Your task to perform on an android device: install app "Flipkart Online Shopping App" Image 0: 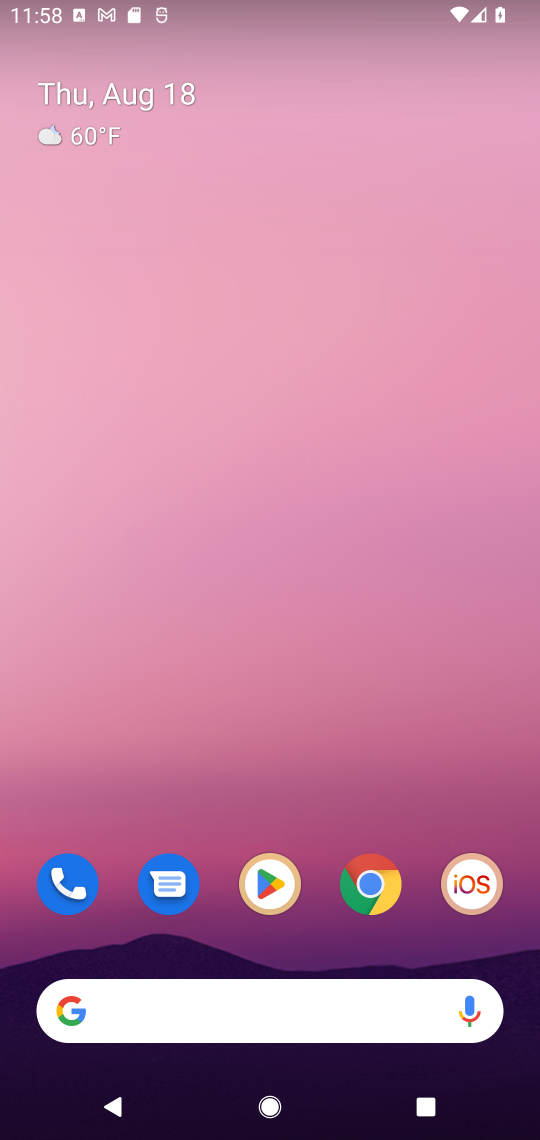
Step 0: drag from (226, 1016) to (285, 83)
Your task to perform on an android device: install app "Flipkart Online Shopping App" Image 1: 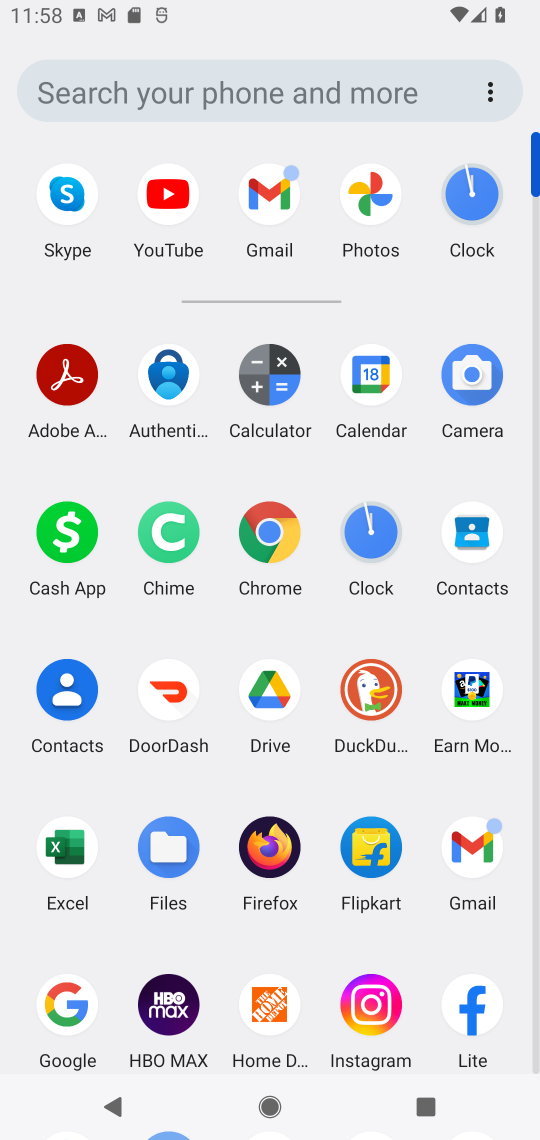
Step 1: drag from (308, 947) to (336, 292)
Your task to perform on an android device: install app "Flipkart Online Shopping App" Image 2: 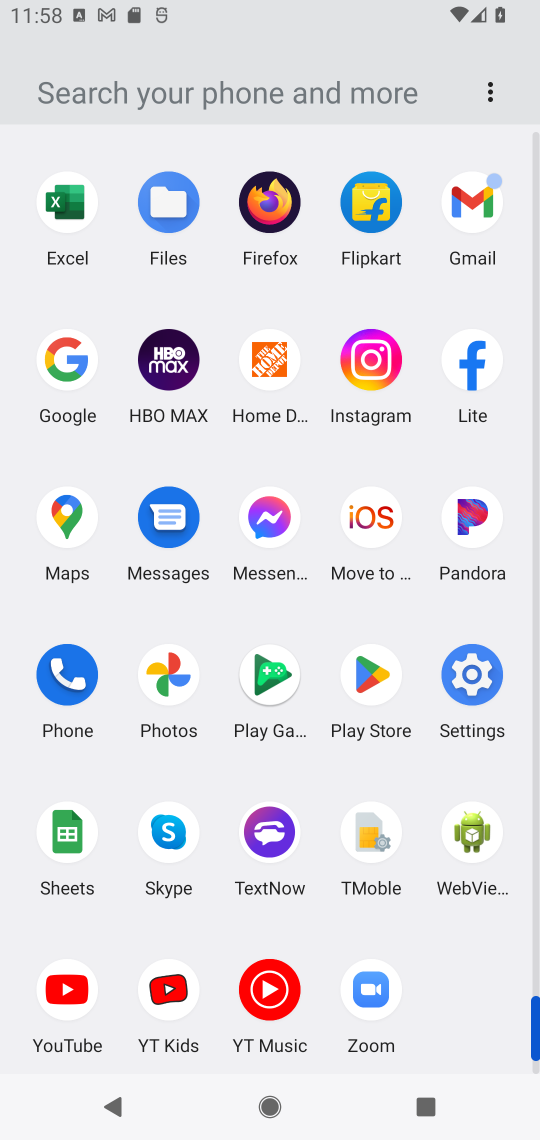
Step 2: click (369, 676)
Your task to perform on an android device: install app "Flipkart Online Shopping App" Image 3: 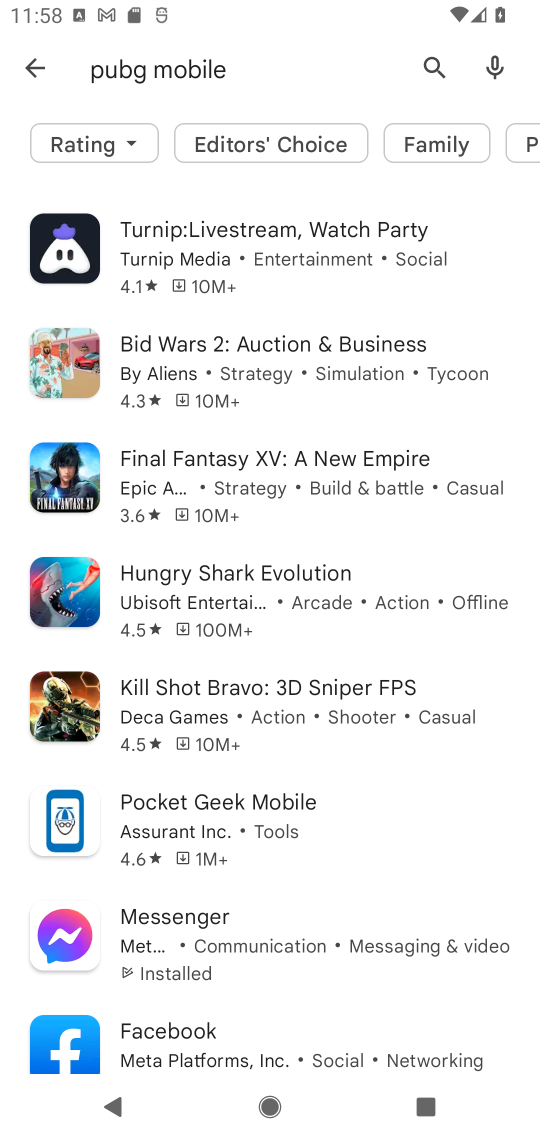
Step 3: press back button
Your task to perform on an android device: install app "Flipkart Online Shopping App" Image 4: 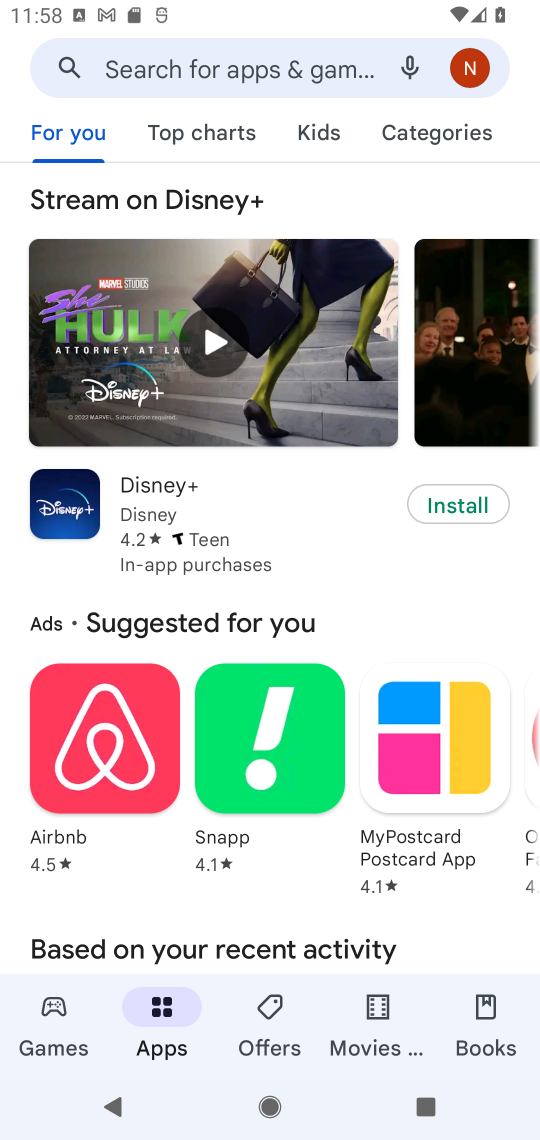
Step 4: click (242, 58)
Your task to perform on an android device: install app "Flipkart Online Shopping App" Image 5: 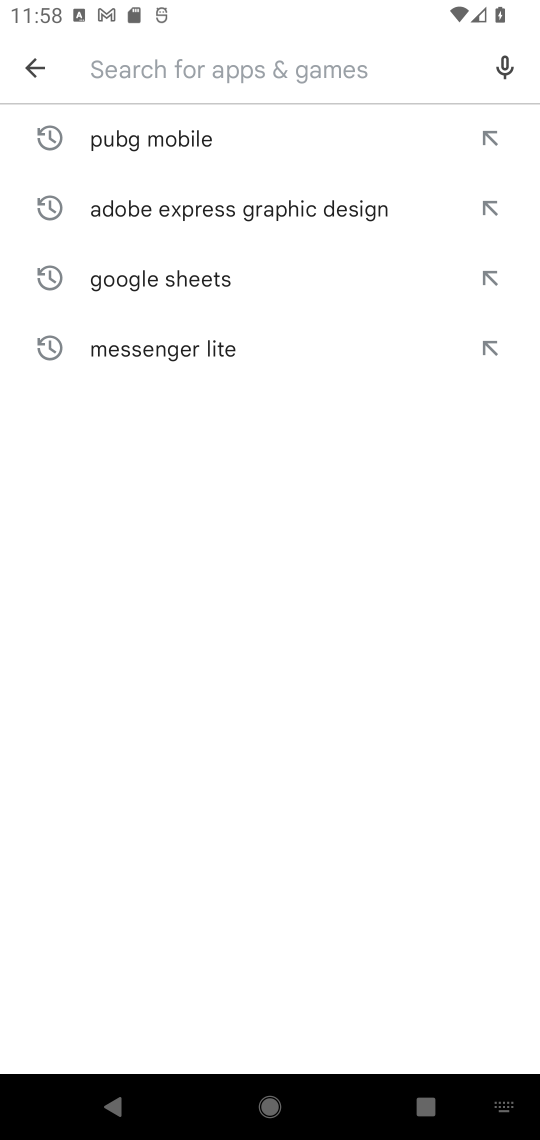
Step 5: type "Flipkart Online Shopping App"
Your task to perform on an android device: install app "Flipkart Online Shopping App" Image 6: 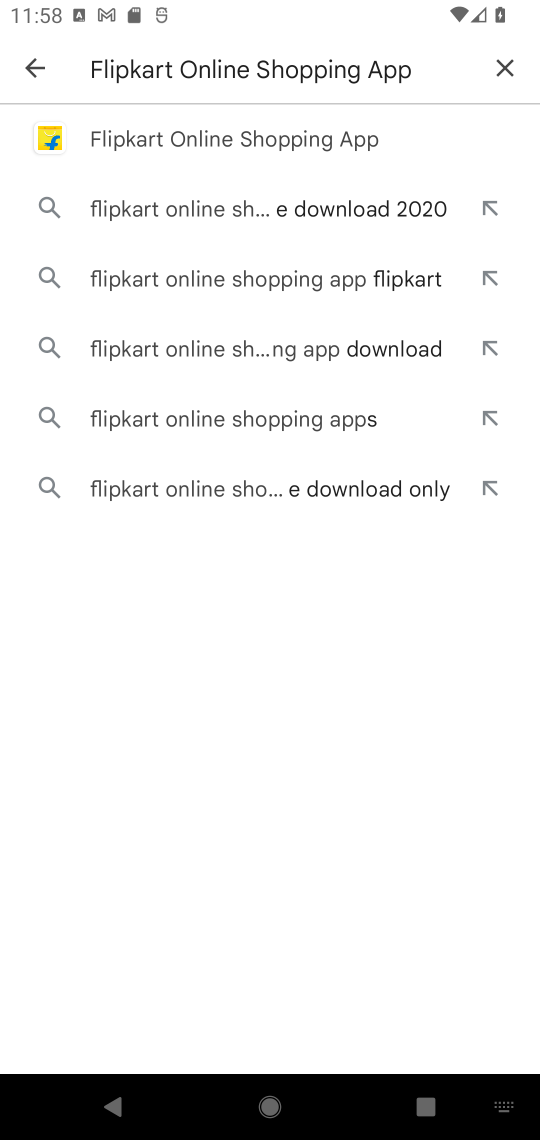
Step 6: click (354, 142)
Your task to perform on an android device: install app "Flipkart Online Shopping App" Image 7: 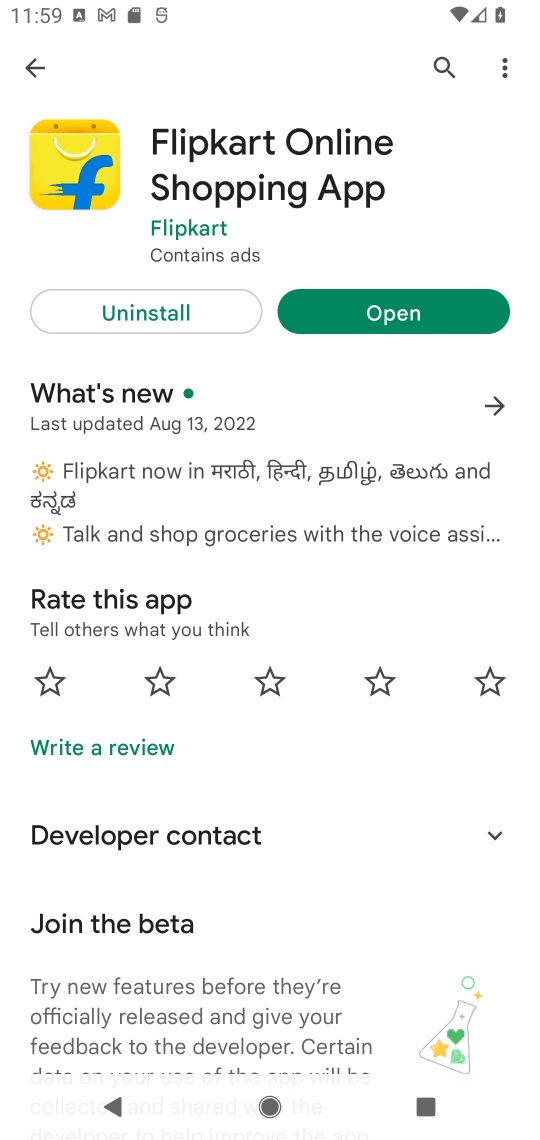
Step 7: task complete